Your task to perform on an android device: turn on wifi Image 0: 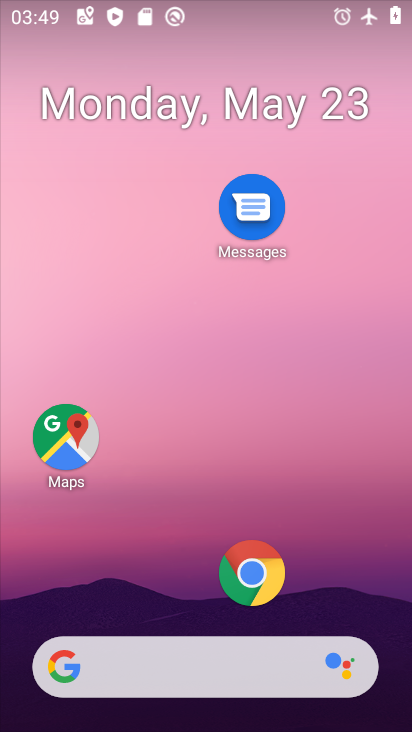
Step 0: drag from (284, 638) to (325, 7)
Your task to perform on an android device: turn on wifi Image 1: 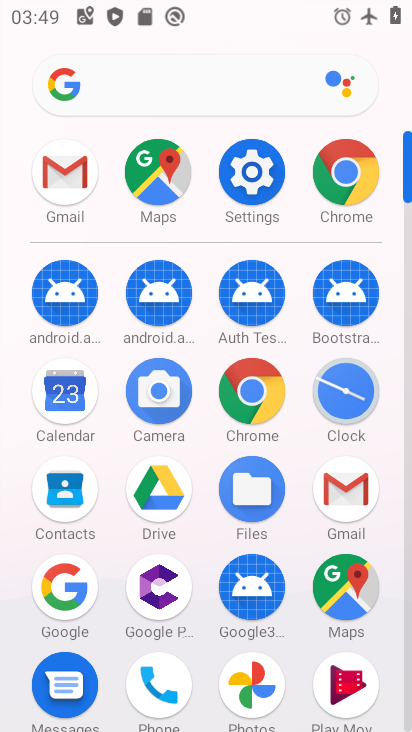
Step 1: click (256, 153)
Your task to perform on an android device: turn on wifi Image 2: 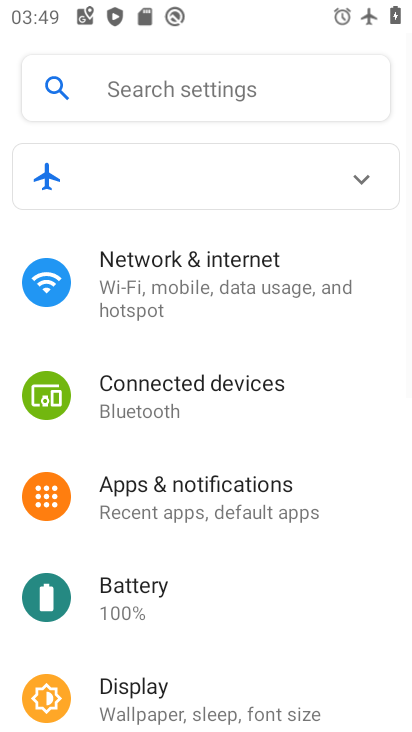
Step 2: click (192, 275)
Your task to perform on an android device: turn on wifi Image 3: 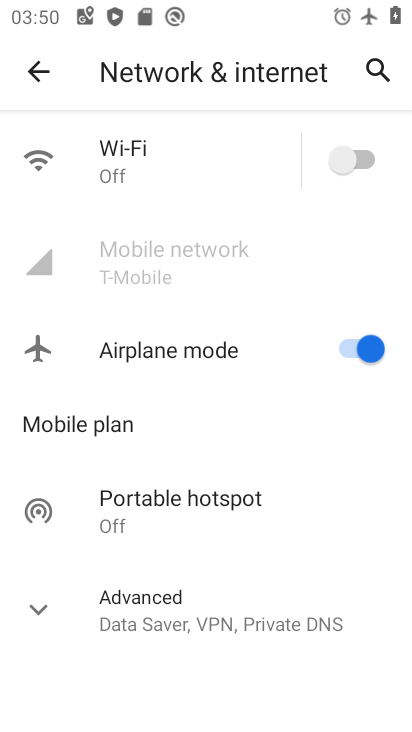
Step 3: click (371, 149)
Your task to perform on an android device: turn on wifi Image 4: 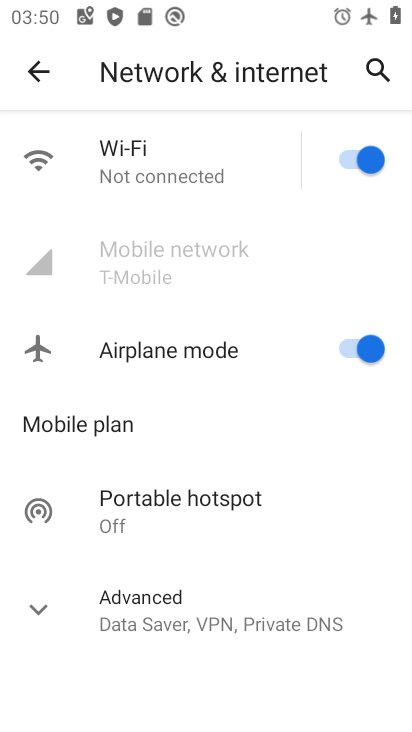
Step 4: task complete